Your task to perform on an android device: Open settings Image 0: 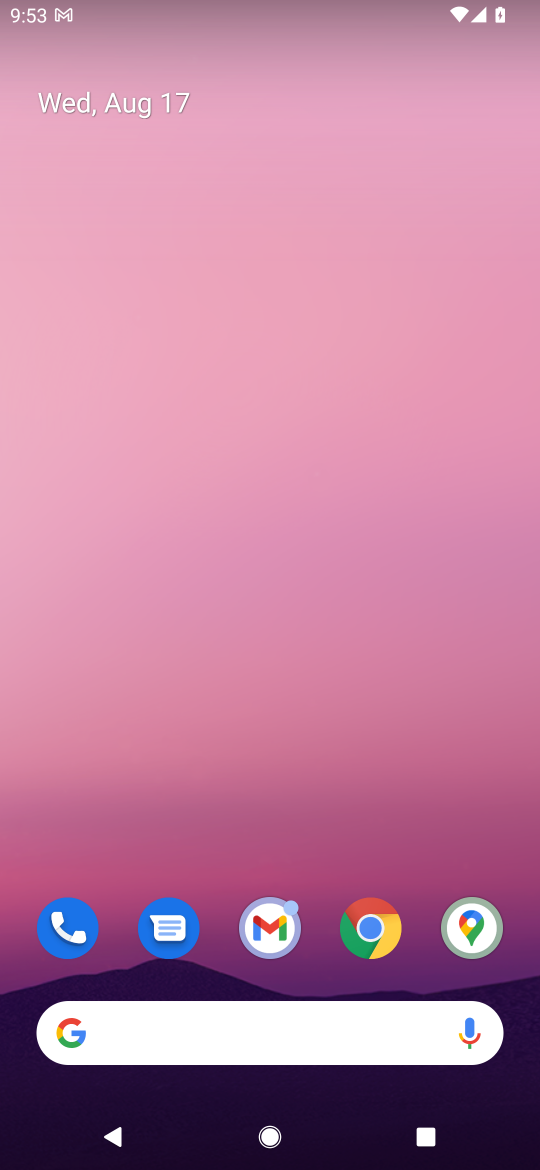
Step 0: drag from (354, 870) to (285, 17)
Your task to perform on an android device: Open settings Image 1: 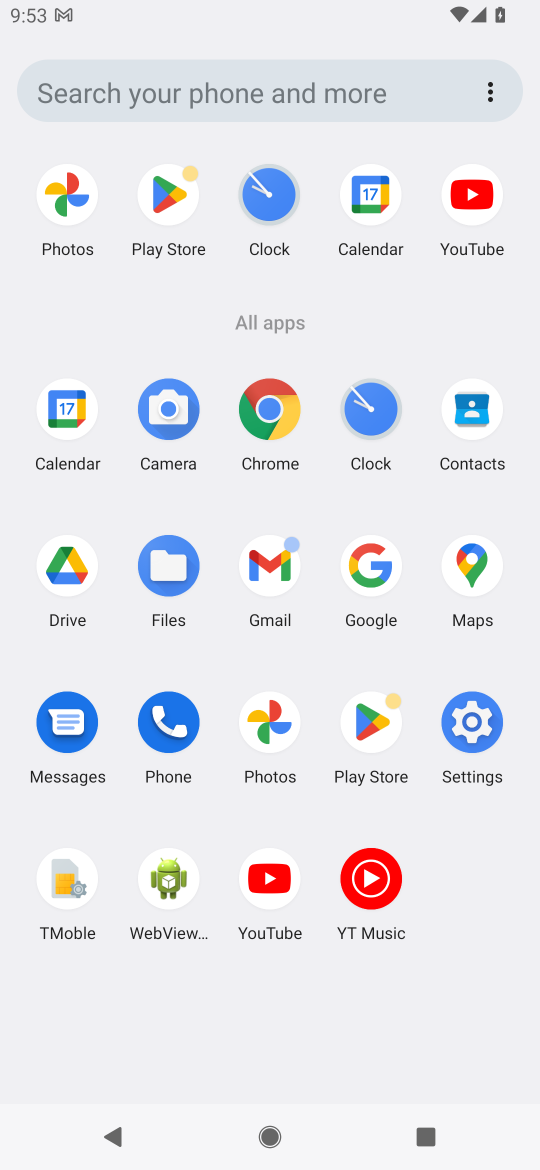
Step 1: click (467, 755)
Your task to perform on an android device: Open settings Image 2: 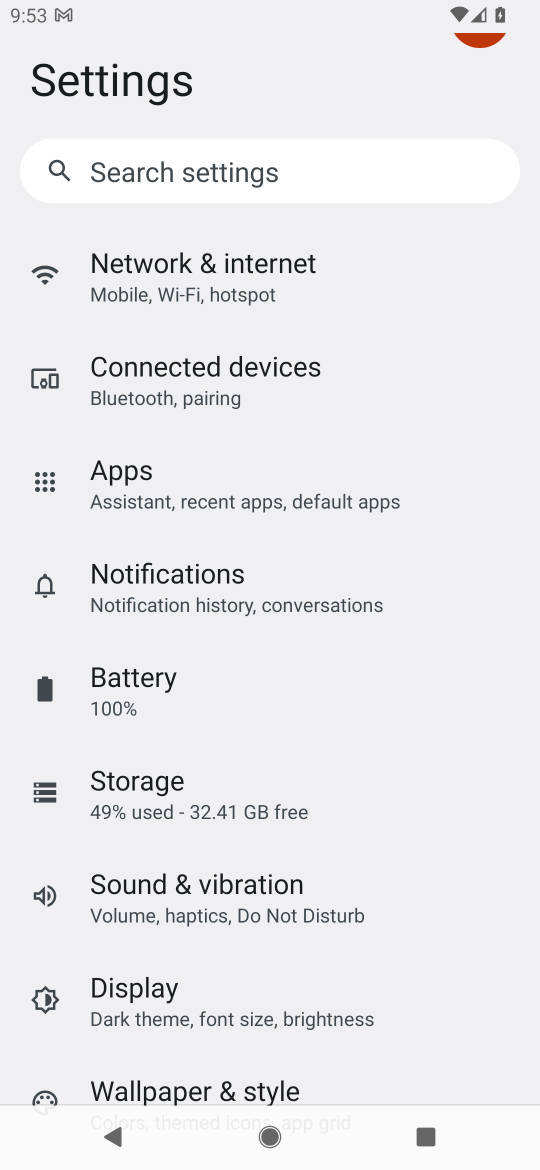
Step 2: task complete